Your task to perform on an android device: open app "Contacts" (install if not already installed) Image 0: 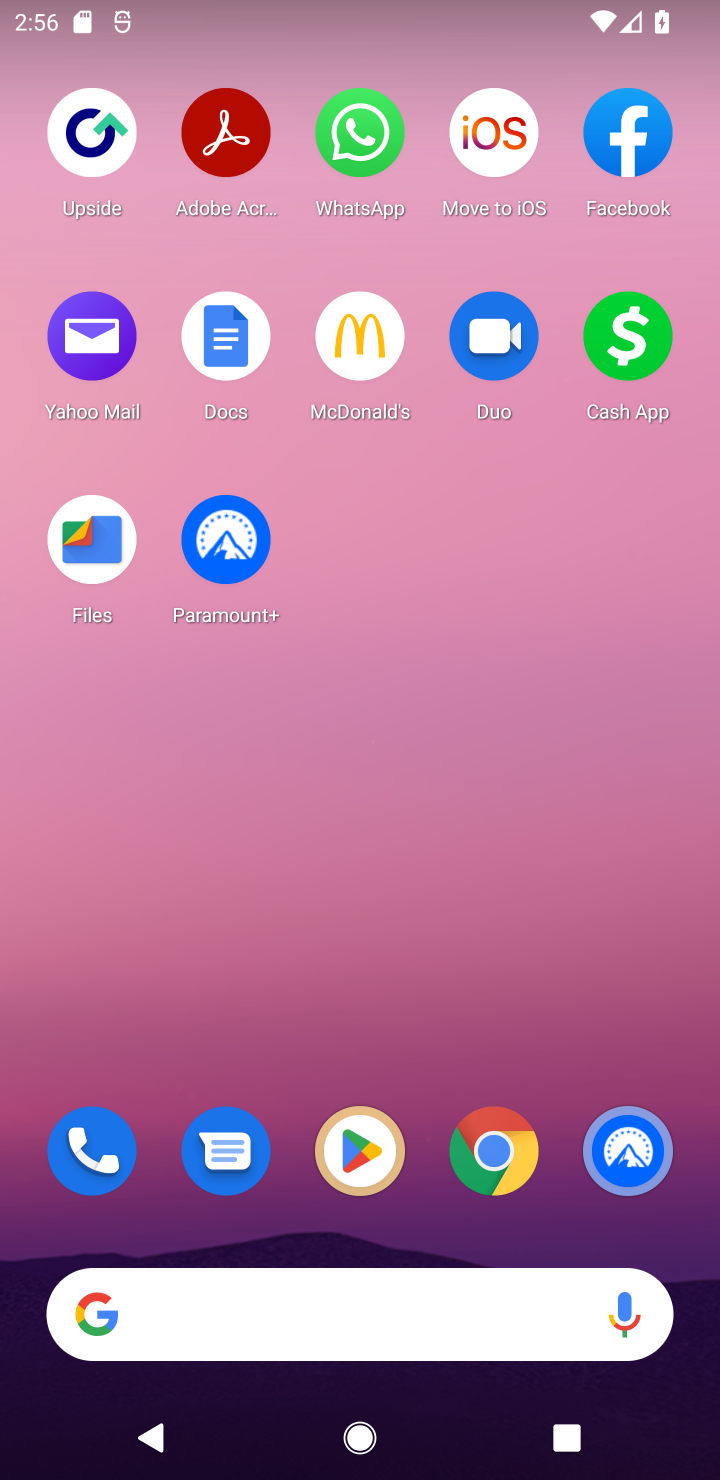
Step 0: click (362, 1127)
Your task to perform on an android device: open app "Contacts" (install if not already installed) Image 1: 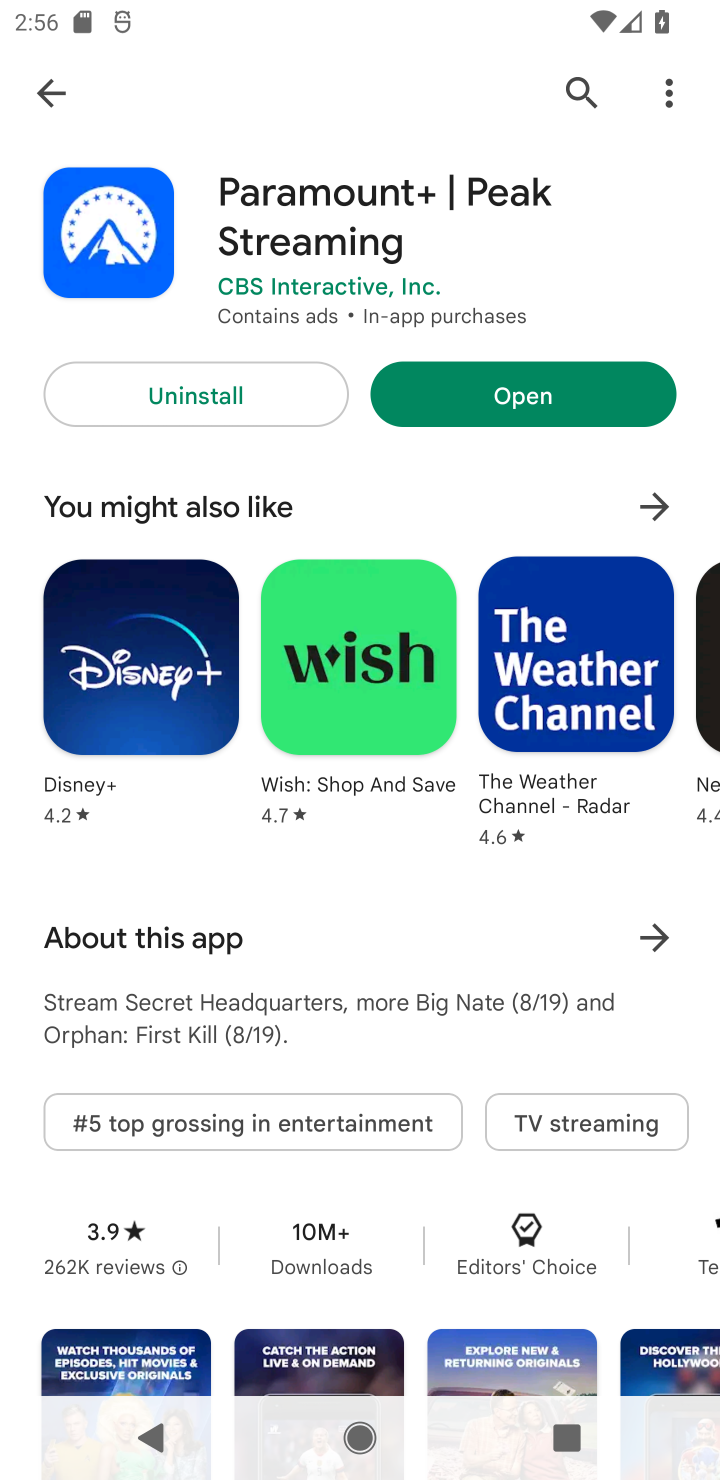
Step 1: click (562, 96)
Your task to perform on an android device: open app "Contacts" (install if not already installed) Image 2: 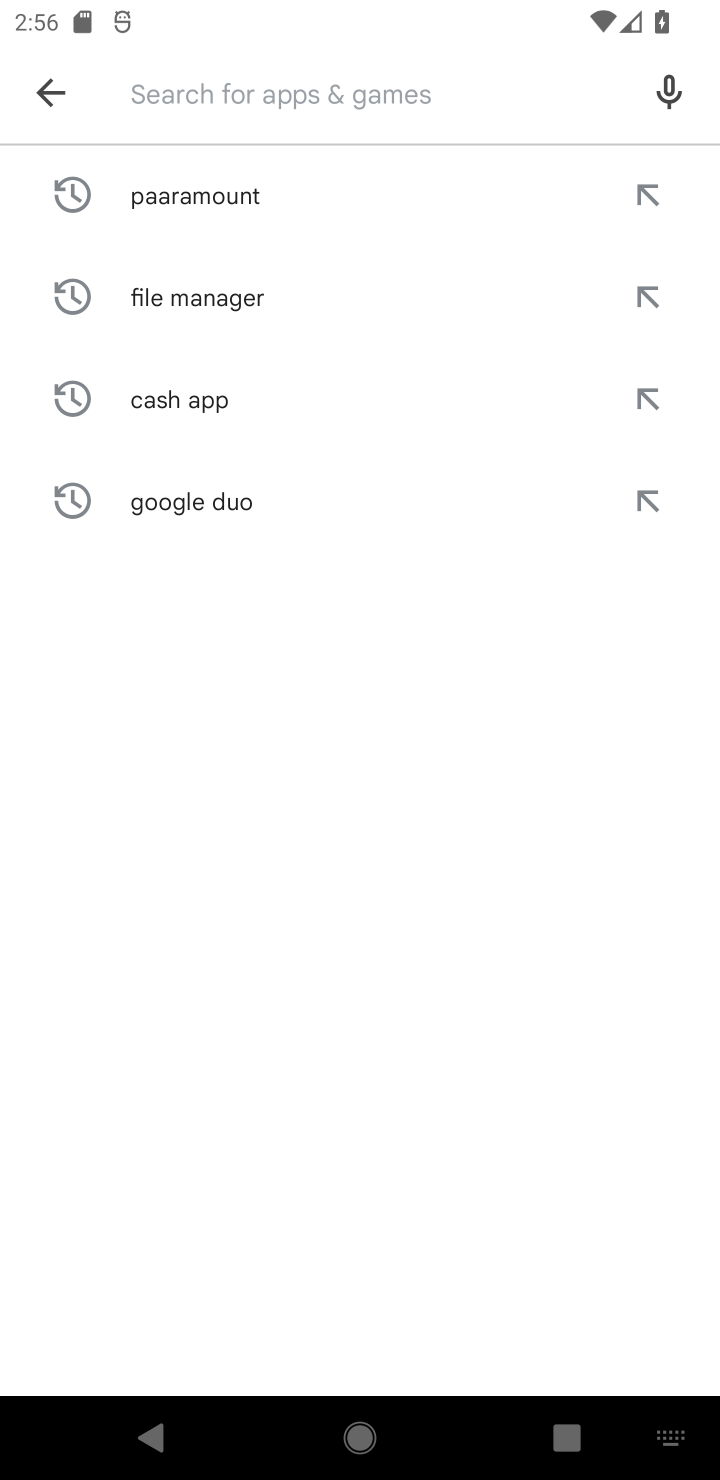
Step 2: type "contact"
Your task to perform on an android device: open app "Contacts" (install if not already installed) Image 3: 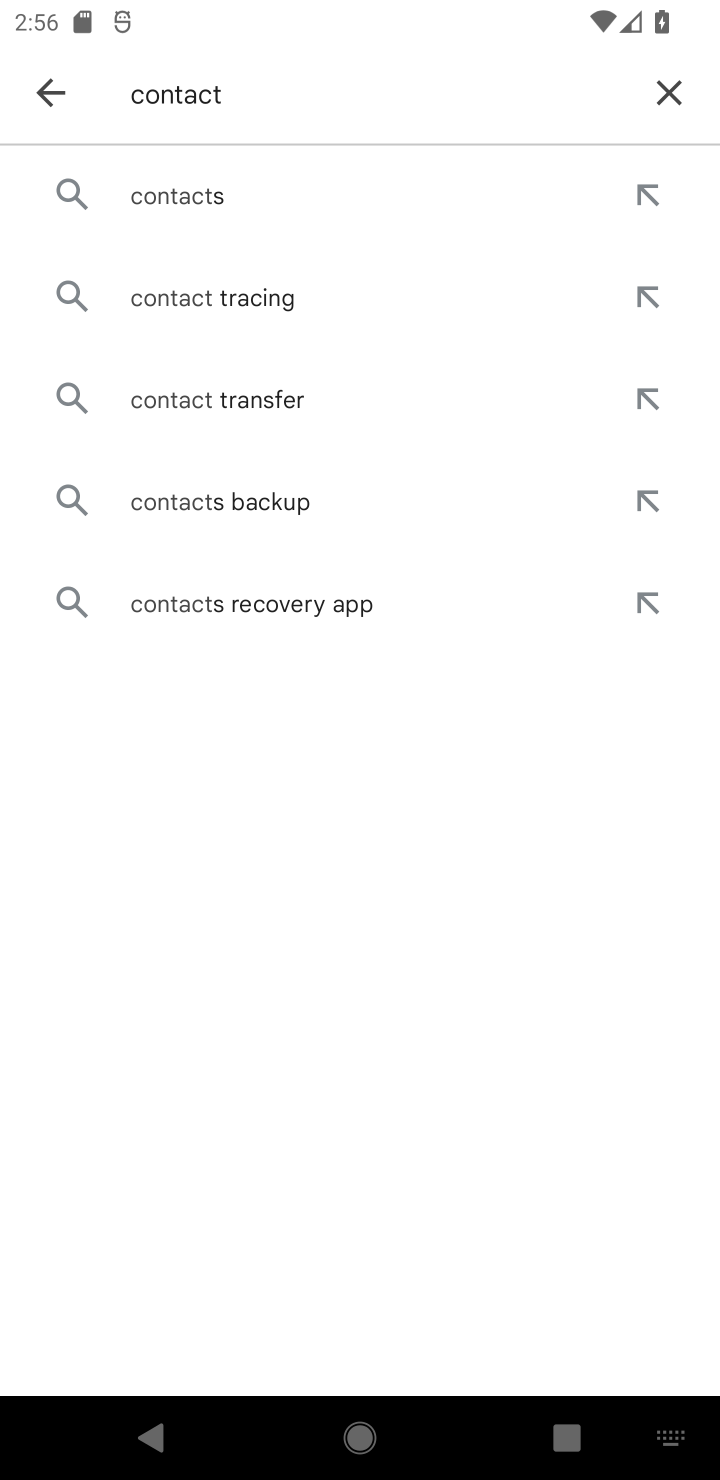
Step 3: click (197, 220)
Your task to perform on an android device: open app "Contacts" (install if not already installed) Image 4: 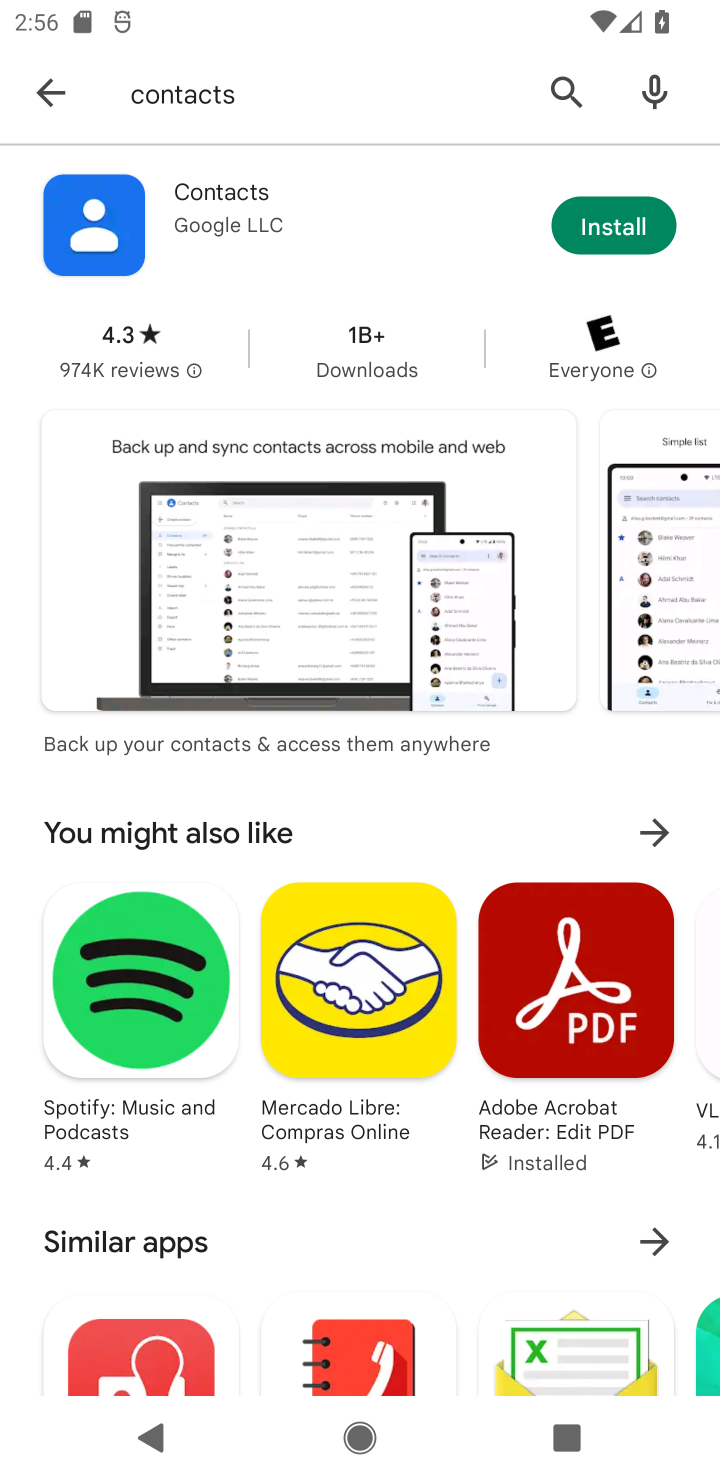
Step 4: click (630, 234)
Your task to perform on an android device: open app "Contacts" (install if not already installed) Image 5: 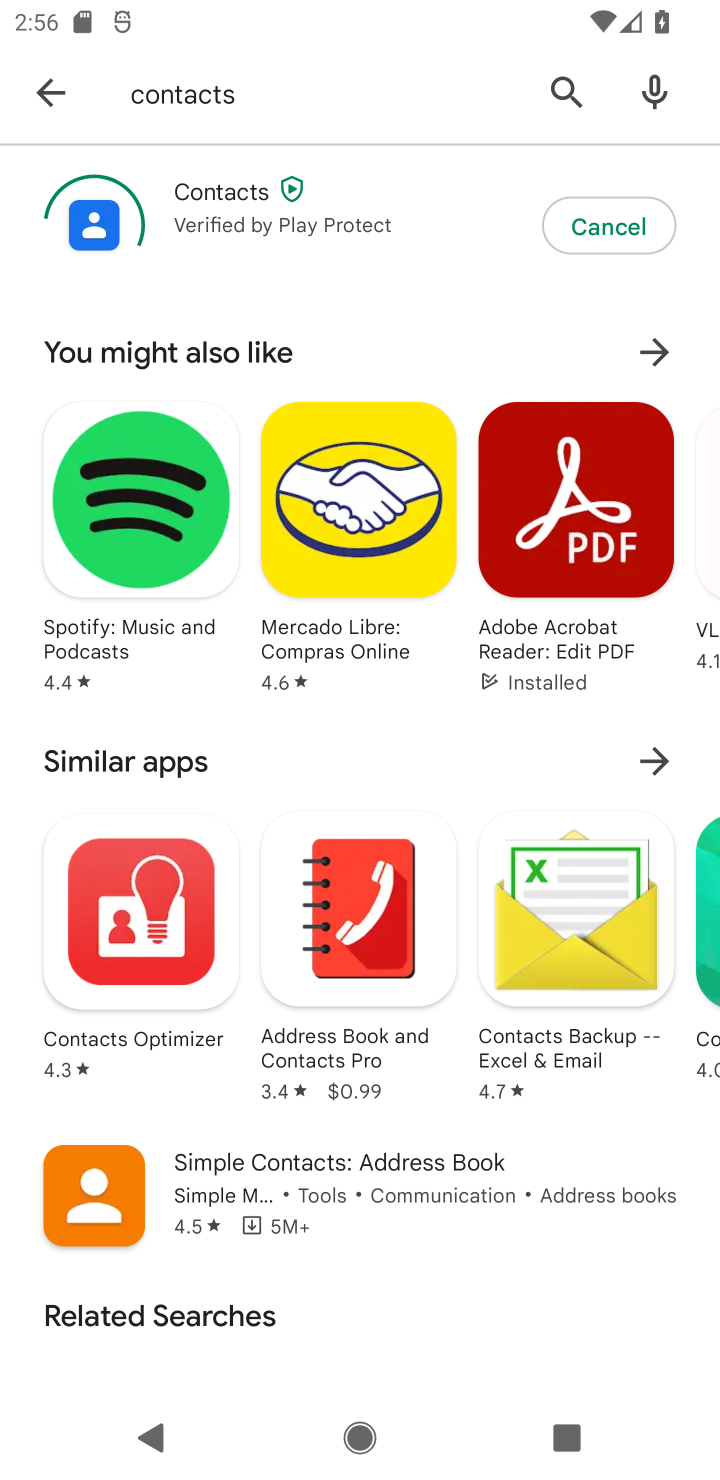
Step 5: task complete